Your task to perform on an android device: change the clock display to digital Image 0: 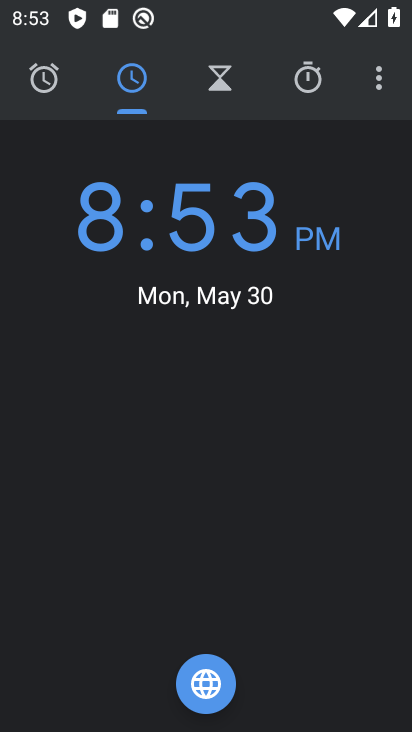
Step 0: click (372, 76)
Your task to perform on an android device: change the clock display to digital Image 1: 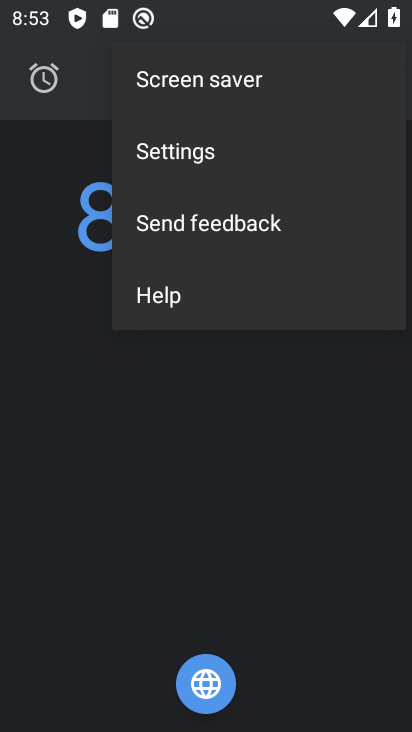
Step 1: click (179, 167)
Your task to perform on an android device: change the clock display to digital Image 2: 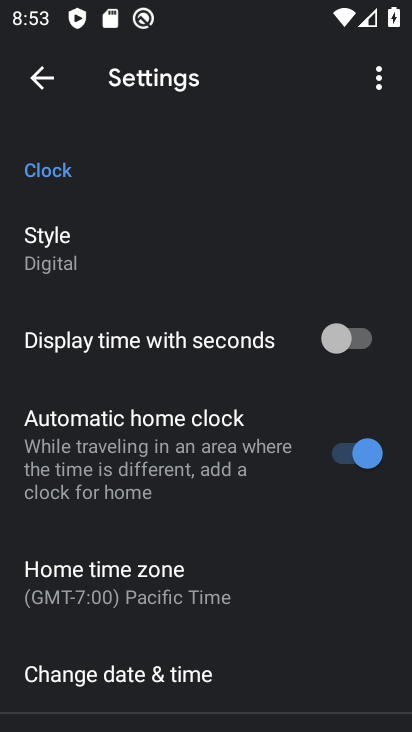
Step 2: click (37, 248)
Your task to perform on an android device: change the clock display to digital Image 3: 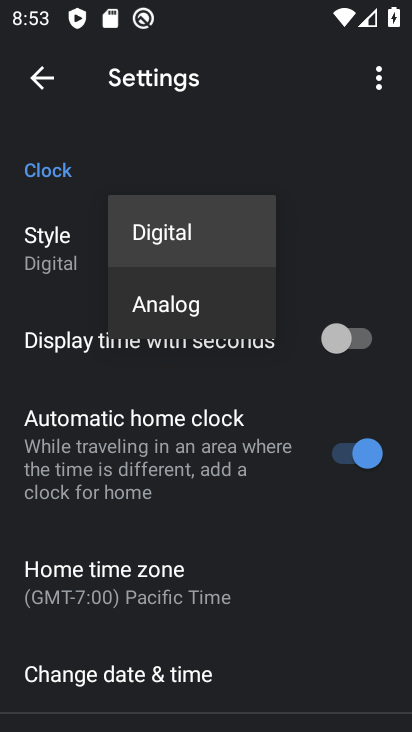
Step 3: task complete